Your task to perform on an android device: empty trash in the gmail app Image 0: 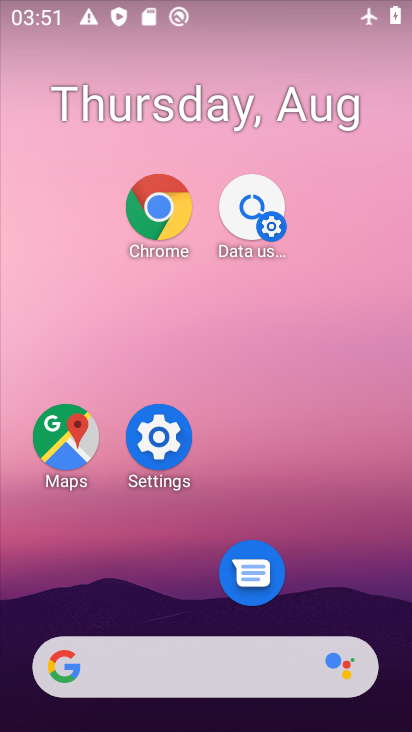
Step 0: drag from (196, 534) to (127, 173)
Your task to perform on an android device: empty trash in the gmail app Image 1: 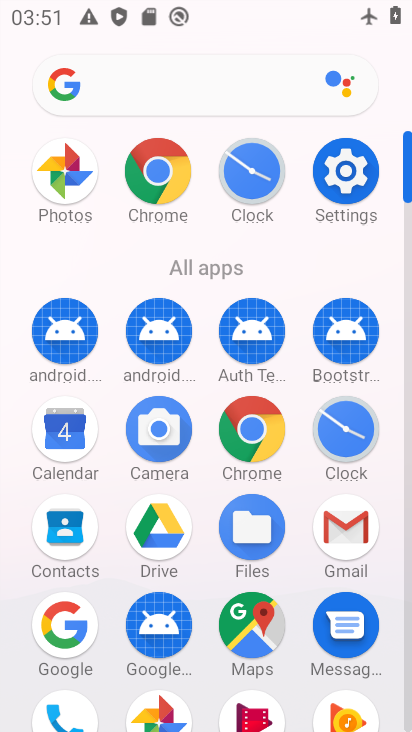
Step 1: click (334, 526)
Your task to perform on an android device: empty trash in the gmail app Image 2: 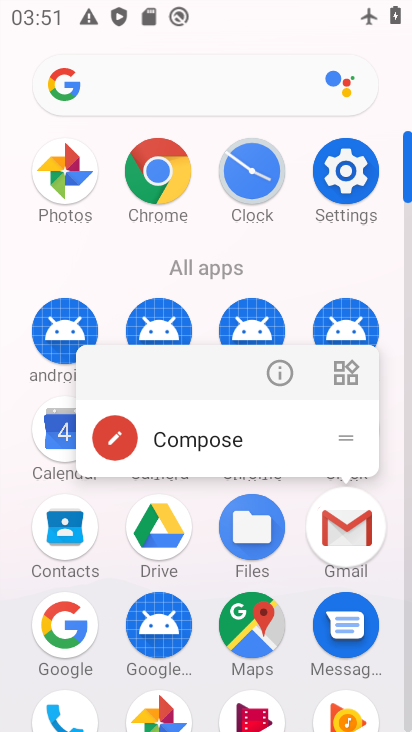
Step 2: click (334, 526)
Your task to perform on an android device: empty trash in the gmail app Image 3: 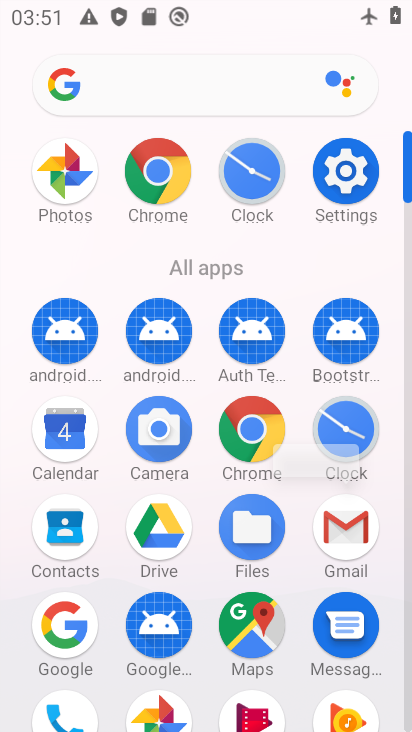
Step 3: click (334, 526)
Your task to perform on an android device: empty trash in the gmail app Image 4: 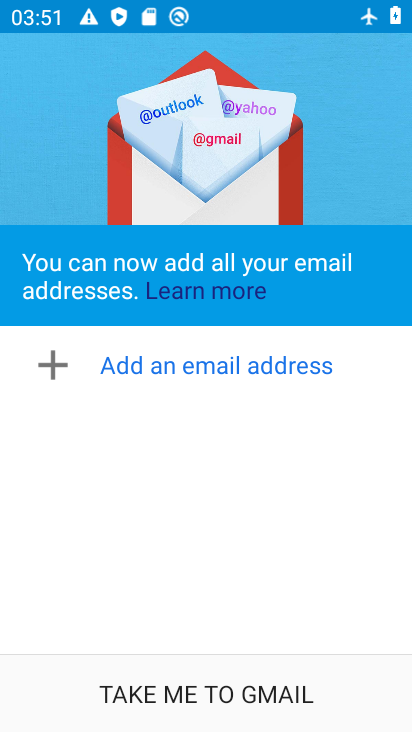
Step 4: click (336, 528)
Your task to perform on an android device: empty trash in the gmail app Image 5: 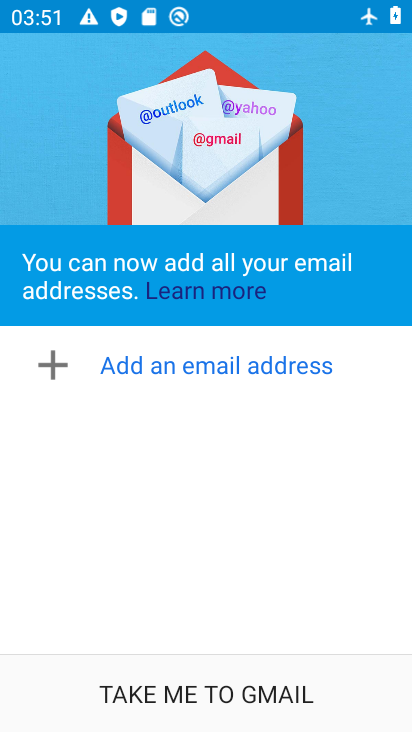
Step 5: click (201, 686)
Your task to perform on an android device: empty trash in the gmail app Image 6: 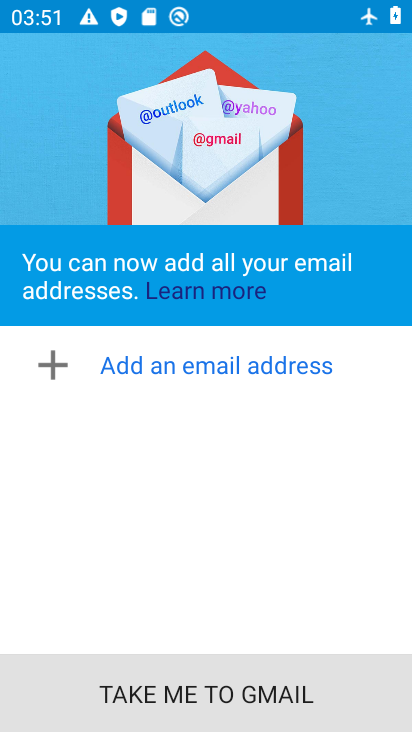
Step 6: click (202, 685)
Your task to perform on an android device: empty trash in the gmail app Image 7: 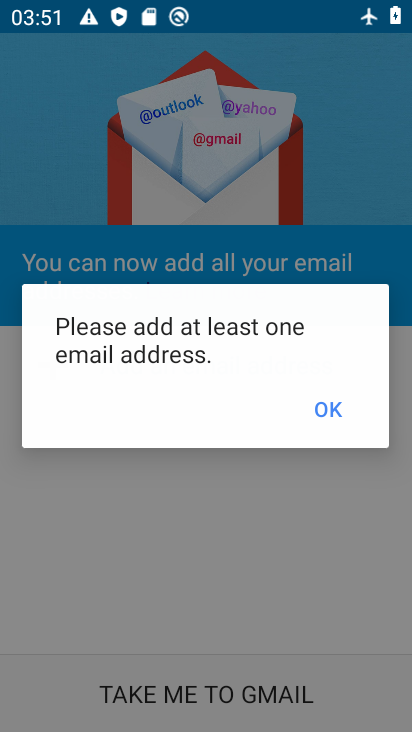
Step 7: click (204, 684)
Your task to perform on an android device: empty trash in the gmail app Image 8: 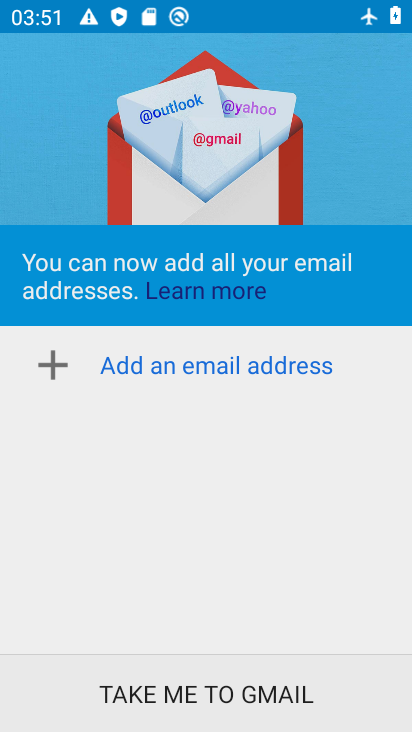
Step 8: click (204, 684)
Your task to perform on an android device: empty trash in the gmail app Image 9: 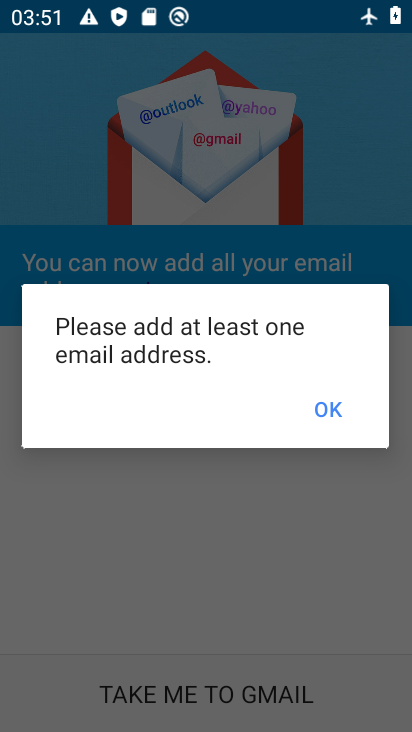
Step 9: click (311, 405)
Your task to perform on an android device: empty trash in the gmail app Image 10: 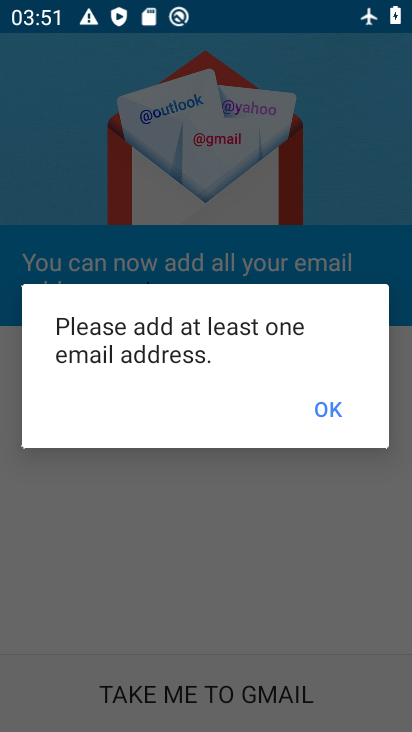
Step 10: click (315, 405)
Your task to perform on an android device: empty trash in the gmail app Image 11: 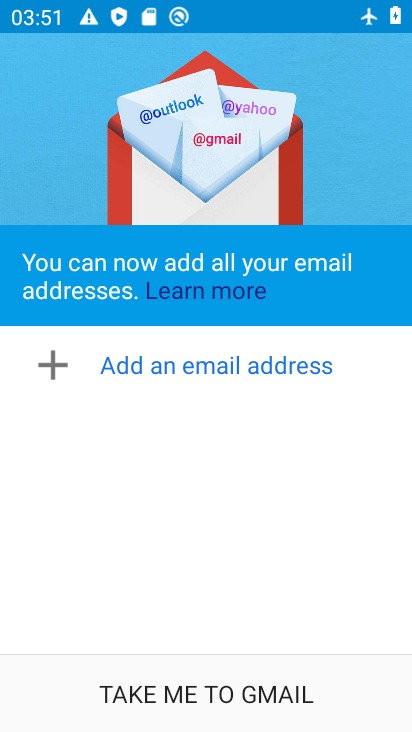
Step 11: click (197, 694)
Your task to perform on an android device: empty trash in the gmail app Image 12: 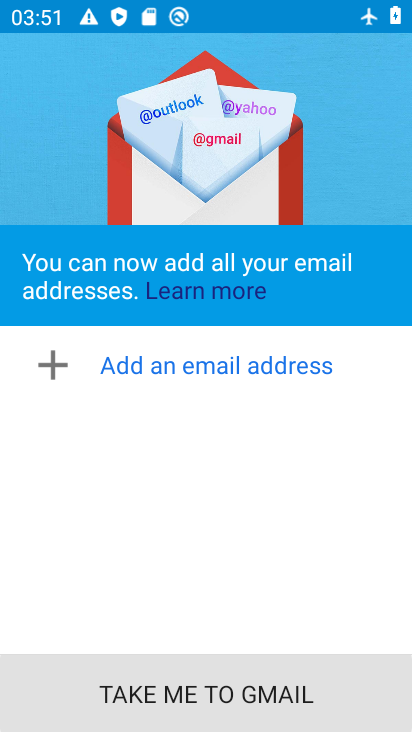
Step 12: click (197, 693)
Your task to perform on an android device: empty trash in the gmail app Image 13: 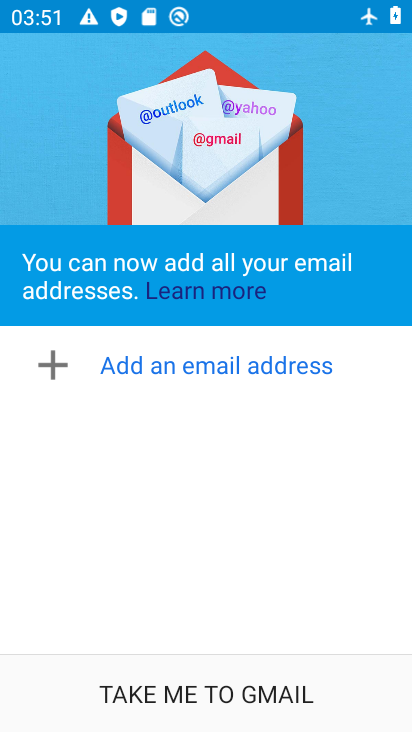
Step 13: click (324, 400)
Your task to perform on an android device: empty trash in the gmail app Image 14: 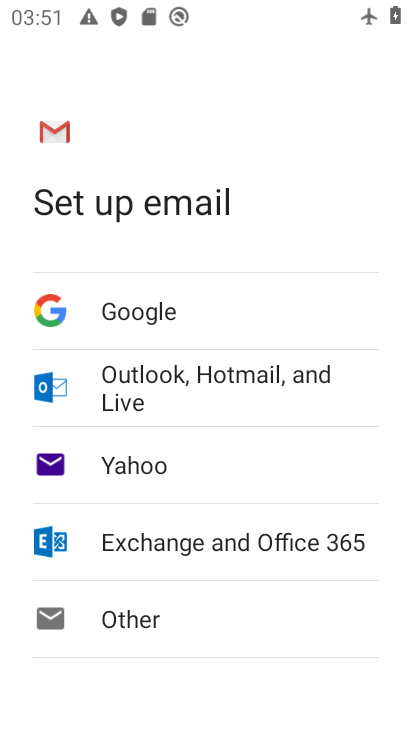
Step 14: task complete